Your task to perform on an android device: Open Yahoo.com Image 0: 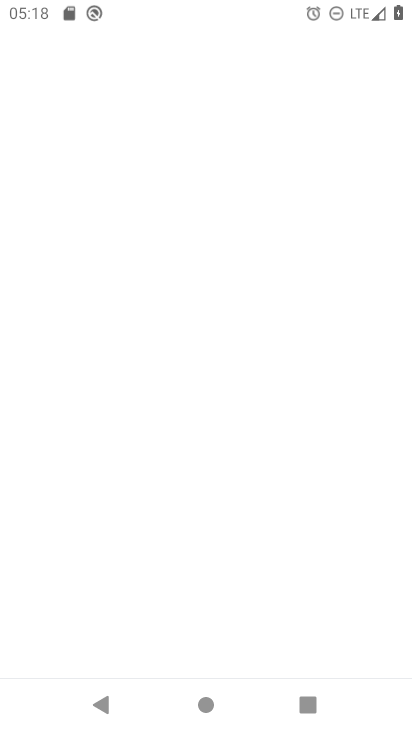
Step 0: drag from (339, 636) to (314, 55)
Your task to perform on an android device: Open Yahoo.com Image 1: 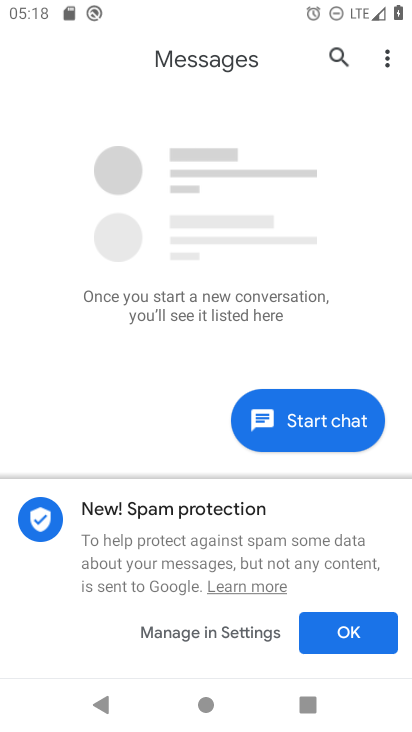
Step 1: press home button
Your task to perform on an android device: Open Yahoo.com Image 2: 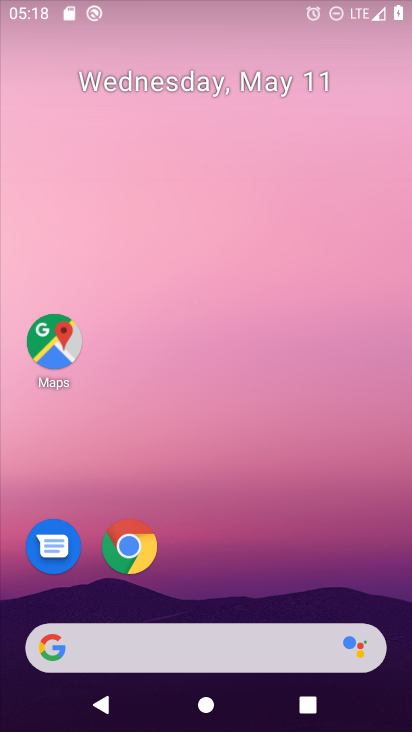
Step 2: drag from (290, 631) to (300, 32)
Your task to perform on an android device: Open Yahoo.com Image 3: 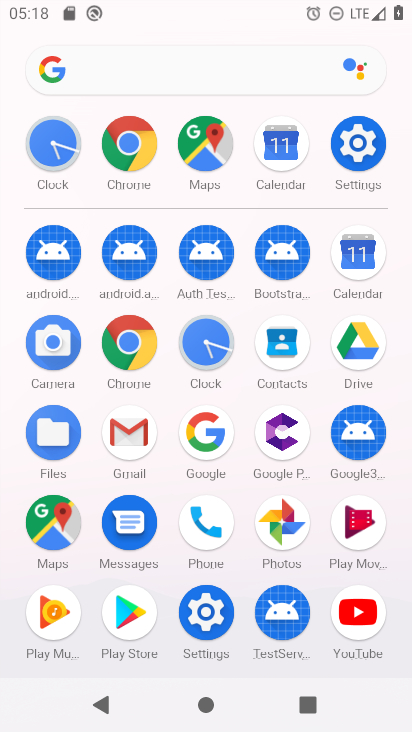
Step 3: click (116, 351)
Your task to perform on an android device: Open Yahoo.com Image 4: 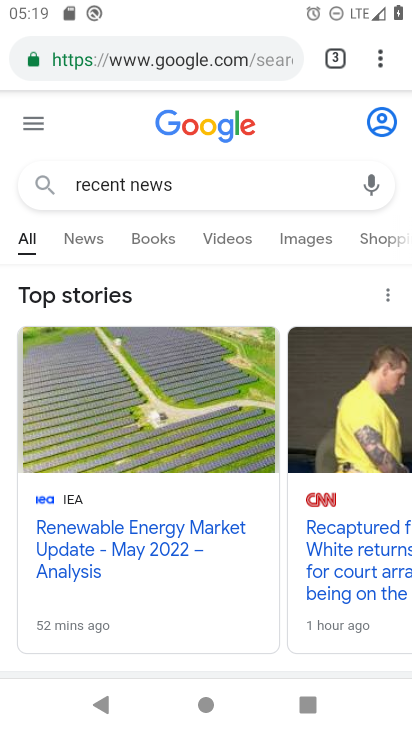
Step 4: click (124, 63)
Your task to perform on an android device: Open Yahoo.com Image 5: 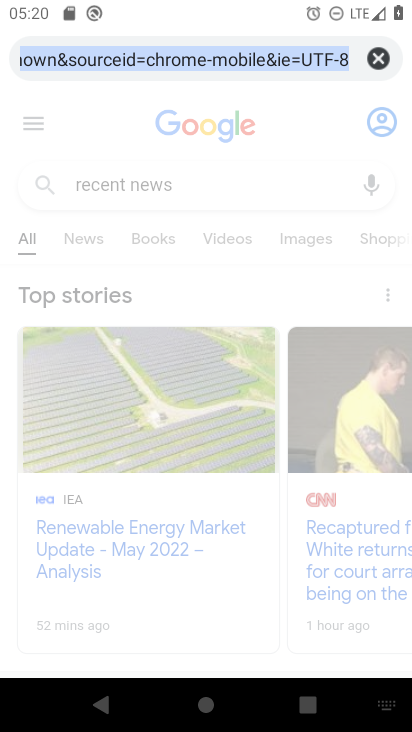
Step 5: click (382, 58)
Your task to perform on an android device: Open Yahoo.com Image 6: 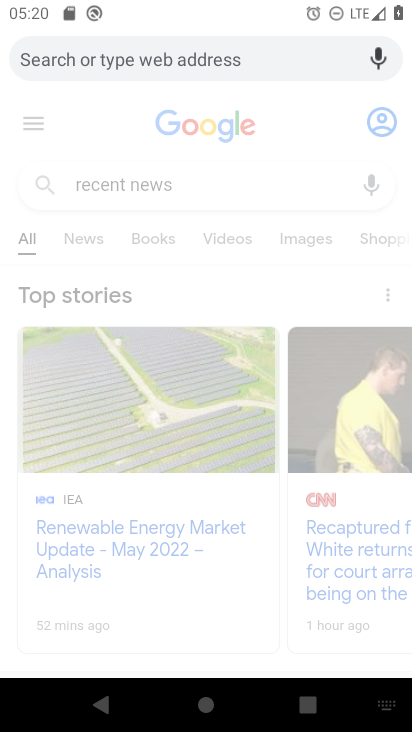
Step 6: type "yahoo.com"
Your task to perform on an android device: Open Yahoo.com Image 7: 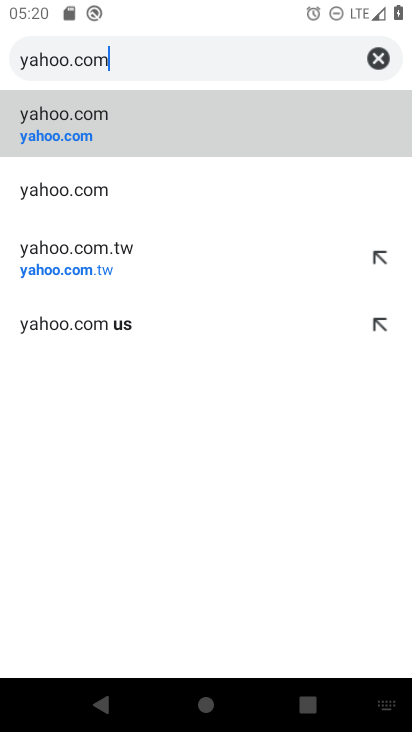
Step 7: click (122, 128)
Your task to perform on an android device: Open Yahoo.com Image 8: 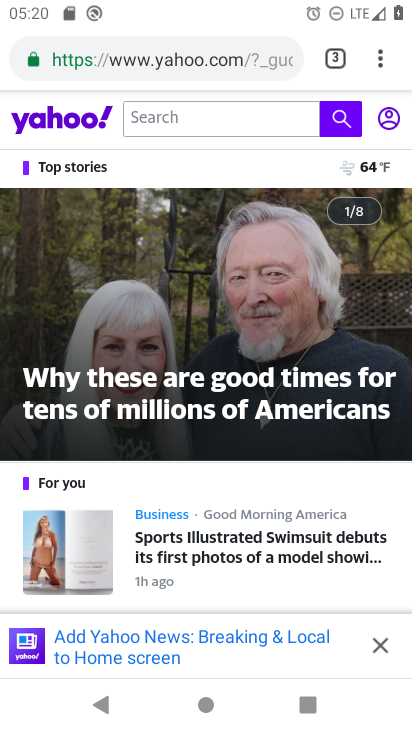
Step 8: task complete